Your task to perform on an android device: Toggle the flashlight Image 0: 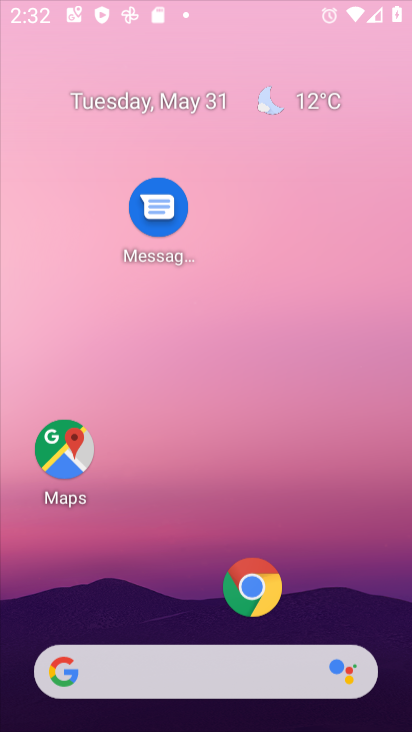
Step 0: click (253, 130)
Your task to perform on an android device: Toggle the flashlight Image 1: 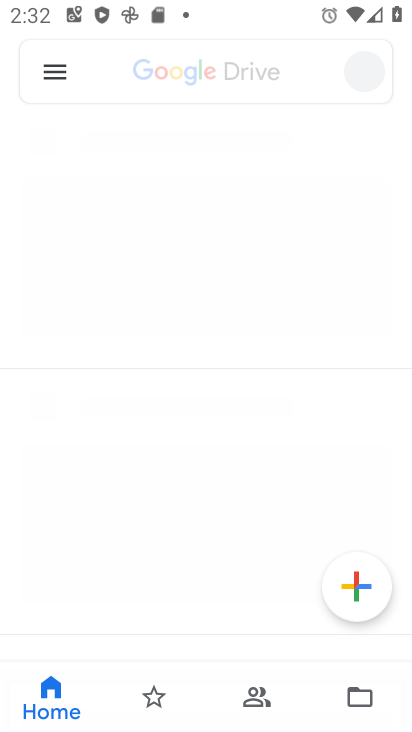
Step 1: click (254, 577)
Your task to perform on an android device: Toggle the flashlight Image 2: 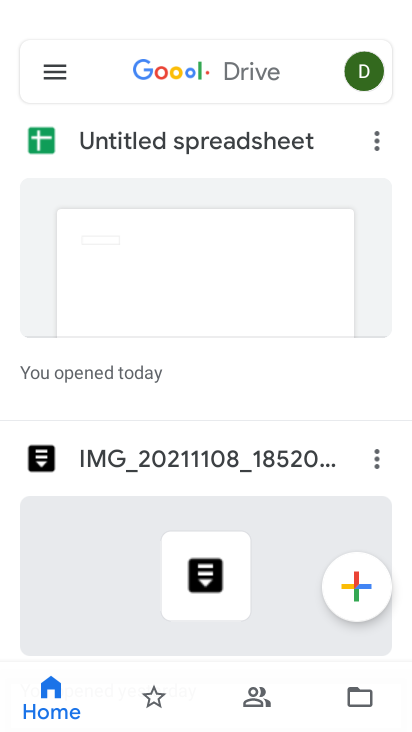
Step 2: drag from (222, 488) to (334, 92)
Your task to perform on an android device: Toggle the flashlight Image 3: 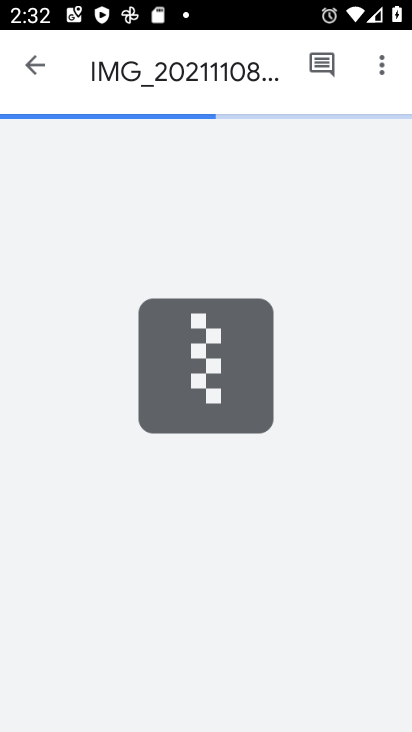
Step 3: press home button
Your task to perform on an android device: Toggle the flashlight Image 4: 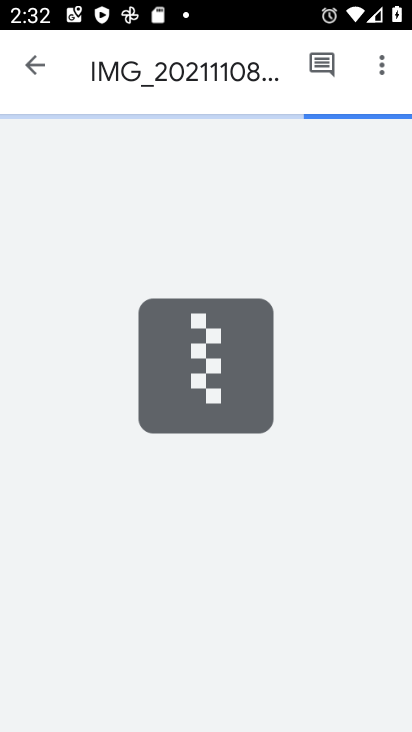
Step 4: drag from (271, 354) to (268, 0)
Your task to perform on an android device: Toggle the flashlight Image 5: 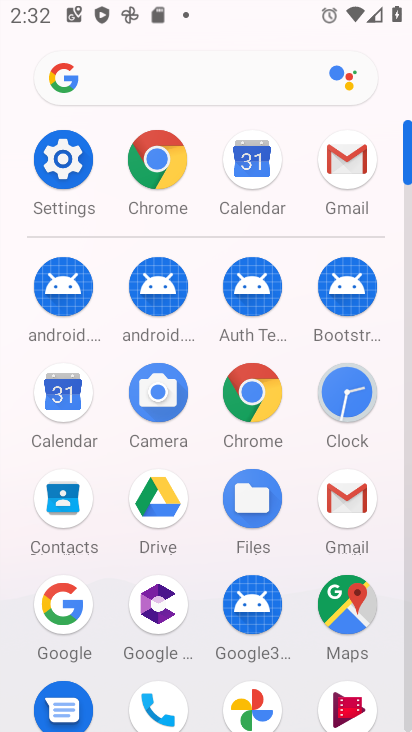
Step 5: click (69, 156)
Your task to perform on an android device: Toggle the flashlight Image 6: 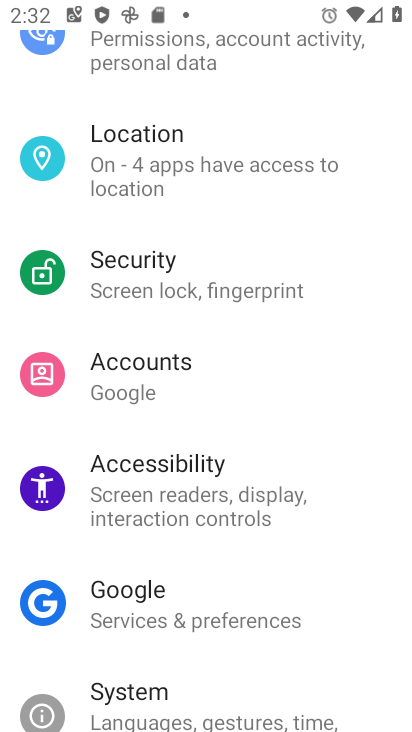
Step 6: drag from (290, 718) to (344, 719)
Your task to perform on an android device: Toggle the flashlight Image 7: 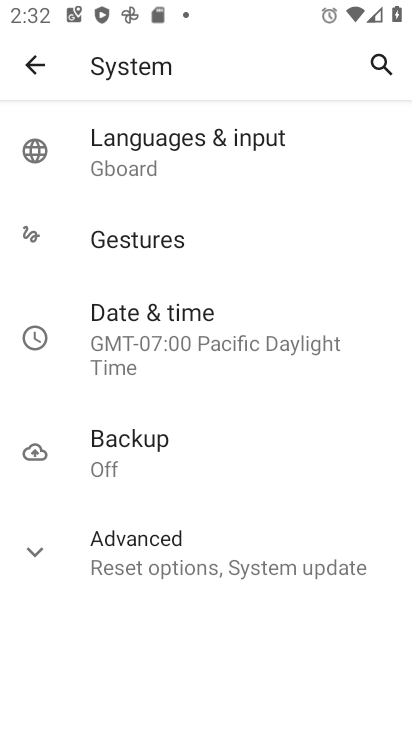
Step 7: click (48, 54)
Your task to perform on an android device: Toggle the flashlight Image 8: 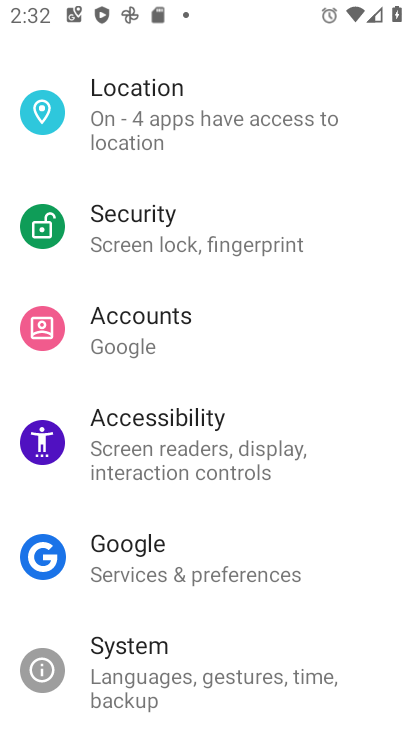
Step 8: click (173, 74)
Your task to perform on an android device: Toggle the flashlight Image 9: 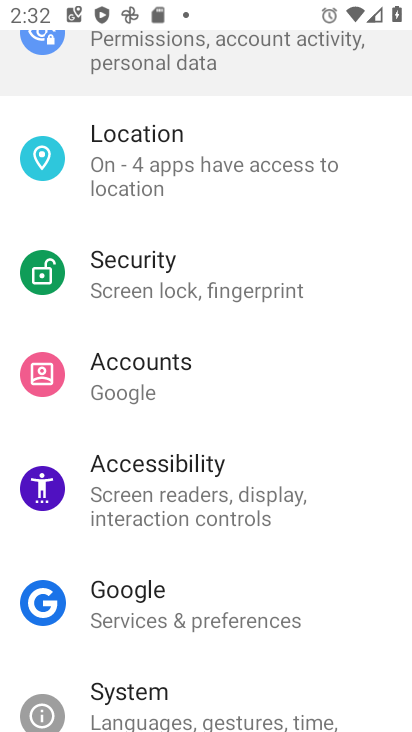
Step 9: drag from (172, 78) to (266, 731)
Your task to perform on an android device: Toggle the flashlight Image 10: 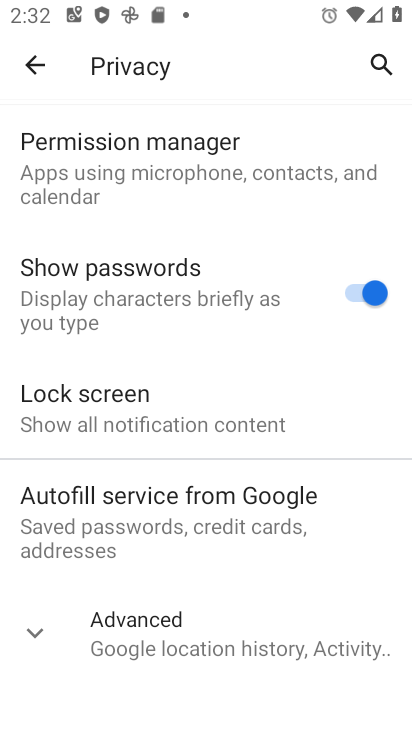
Step 10: click (47, 75)
Your task to perform on an android device: Toggle the flashlight Image 11: 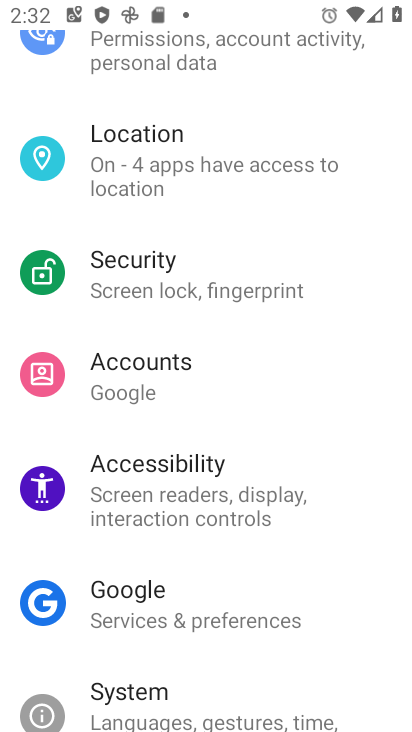
Step 11: drag from (158, 144) to (285, 730)
Your task to perform on an android device: Toggle the flashlight Image 12: 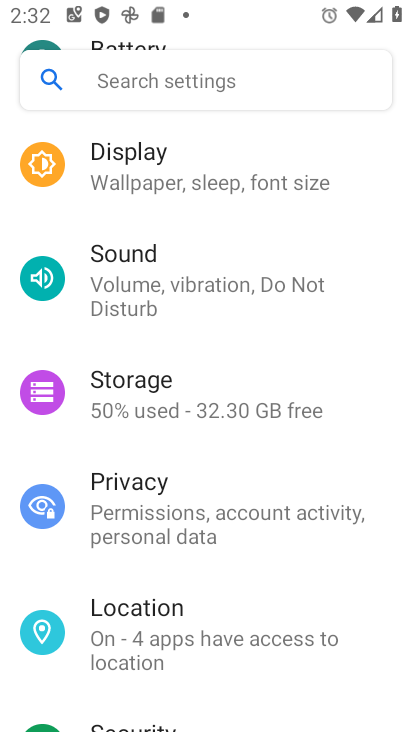
Step 12: click (226, 71)
Your task to perform on an android device: Toggle the flashlight Image 13: 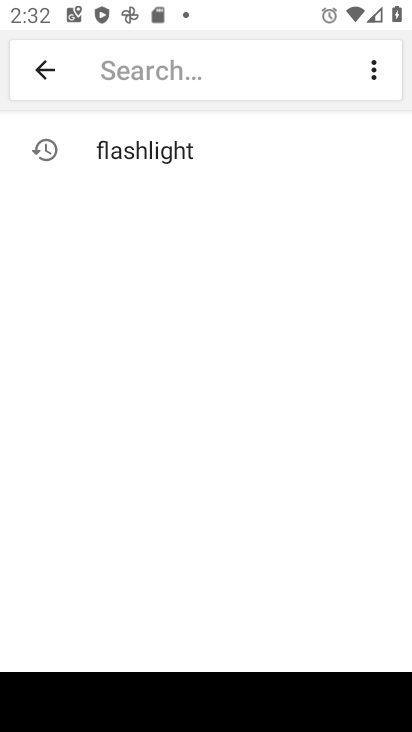
Step 13: type " flashlight"
Your task to perform on an android device: Toggle the flashlight Image 14: 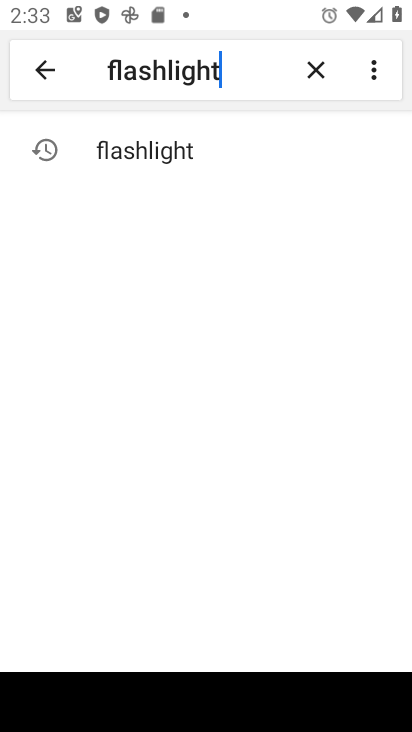
Step 14: type ""
Your task to perform on an android device: Toggle the flashlight Image 15: 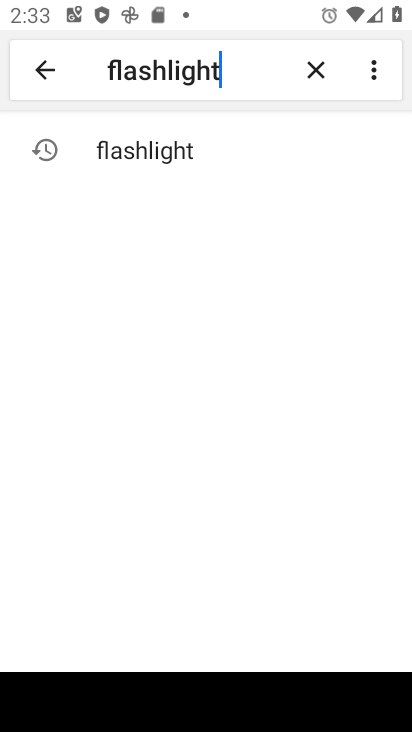
Step 15: click (166, 191)
Your task to perform on an android device: Toggle the flashlight Image 16: 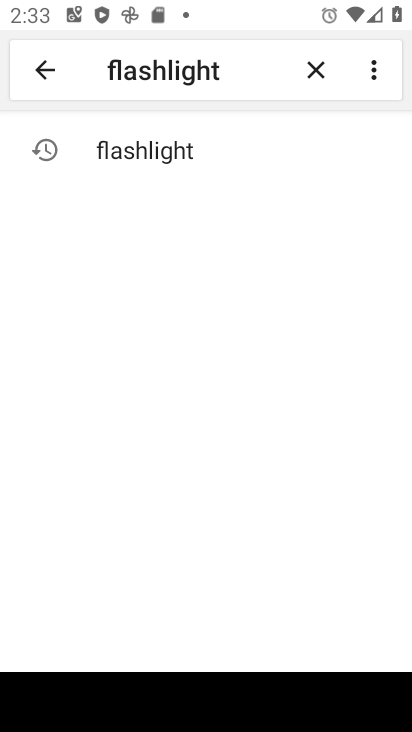
Step 16: click (143, 153)
Your task to perform on an android device: Toggle the flashlight Image 17: 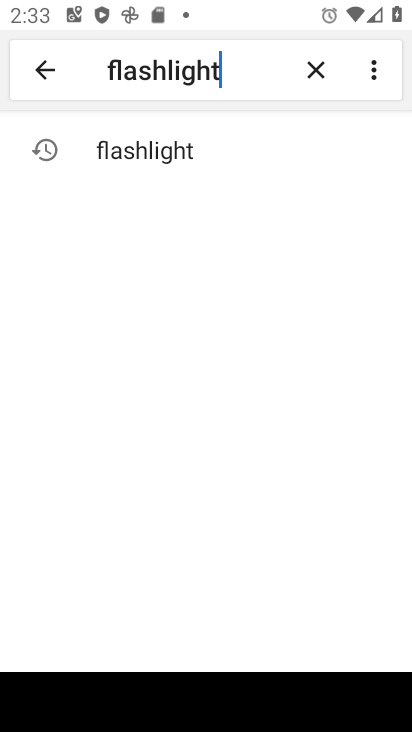
Step 17: click (143, 153)
Your task to perform on an android device: Toggle the flashlight Image 18: 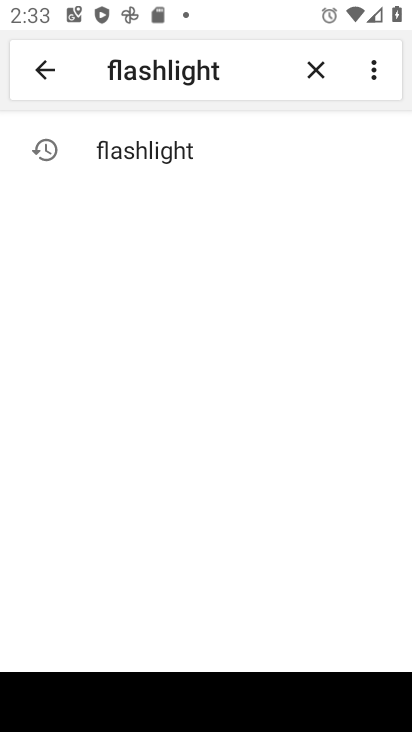
Step 18: task complete